Your task to perform on an android device: toggle wifi Image 0: 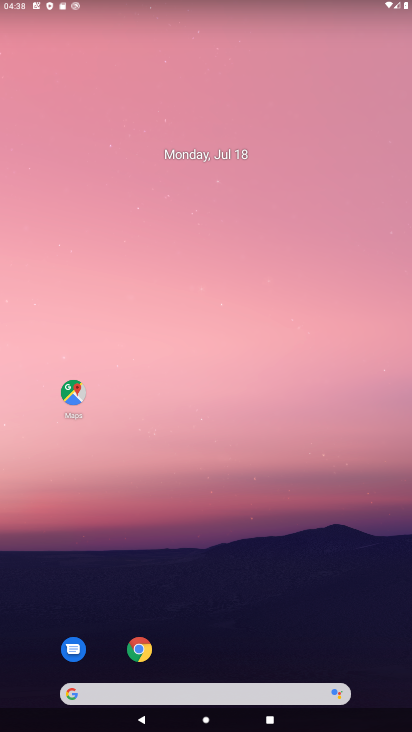
Step 0: drag from (170, 4) to (167, 493)
Your task to perform on an android device: toggle wifi Image 1: 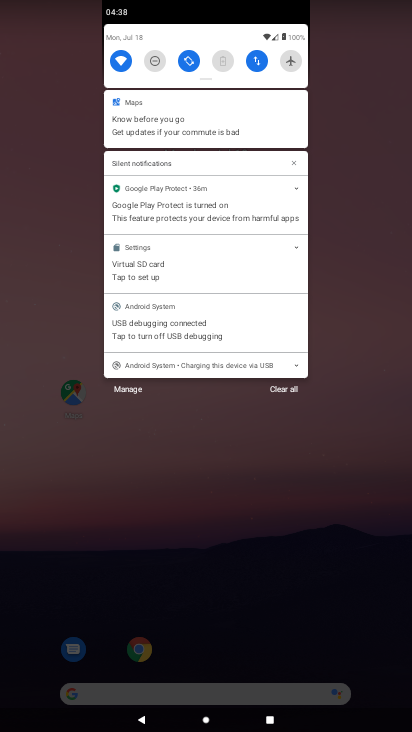
Step 1: click (121, 63)
Your task to perform on an android device: toggle wifi Image 2: 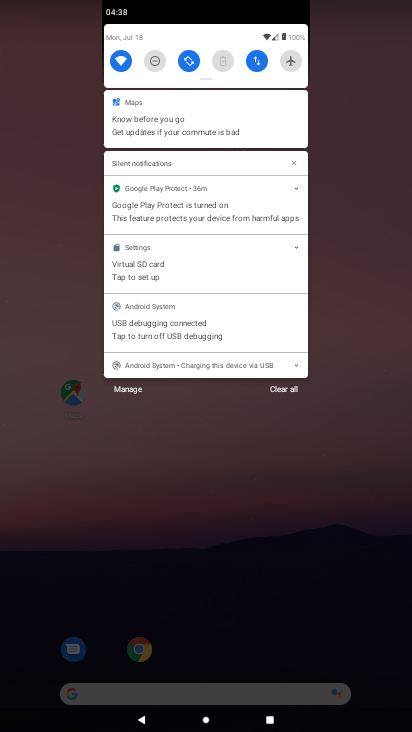
Step 2: click (121, 63)
Your task to perform on an android device: toggle wifi Image 3: 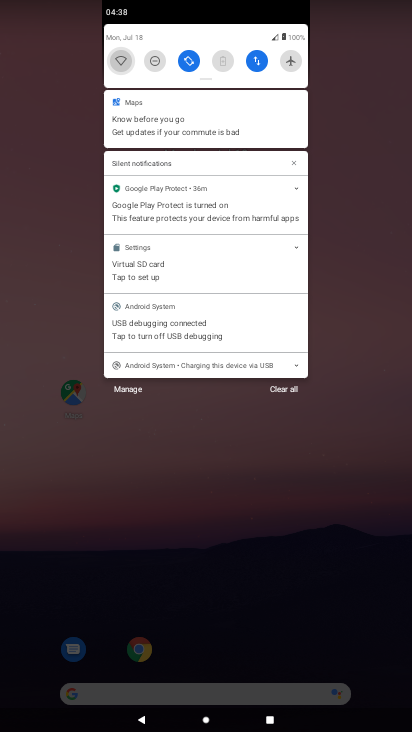
Step 3: click (121, 63)
Your task to perform on an android device: toggle wifi Image 4: 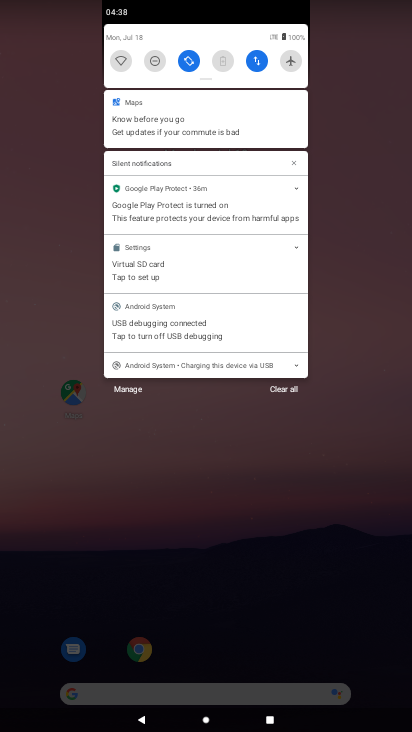
Step 4: click (121, 63)
Your task to perform on an android device: toggle wifi Image 5: 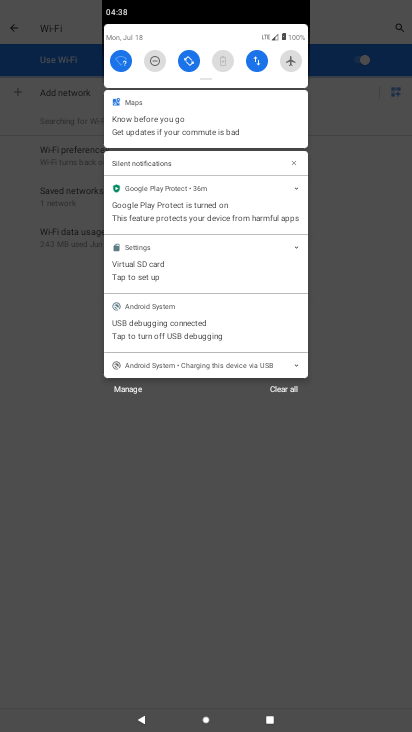
Step 5: task complete